Your task to perform on an android device: Go to notification settings Image 0: 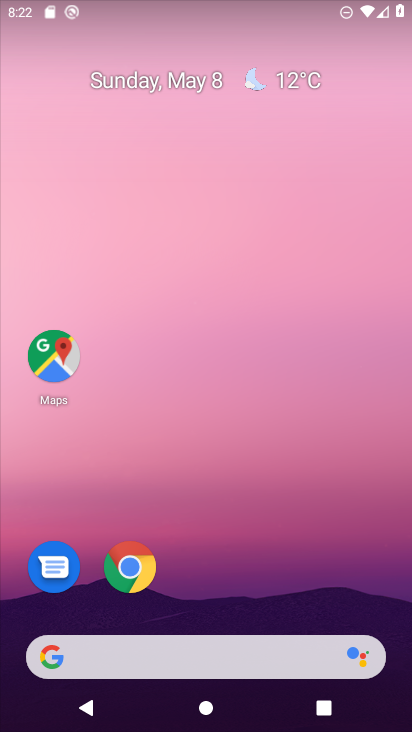
Step 0: drag from (329, 526) to (362, 91)
Your task to perform on an android device: Go to notification settings Image 1: 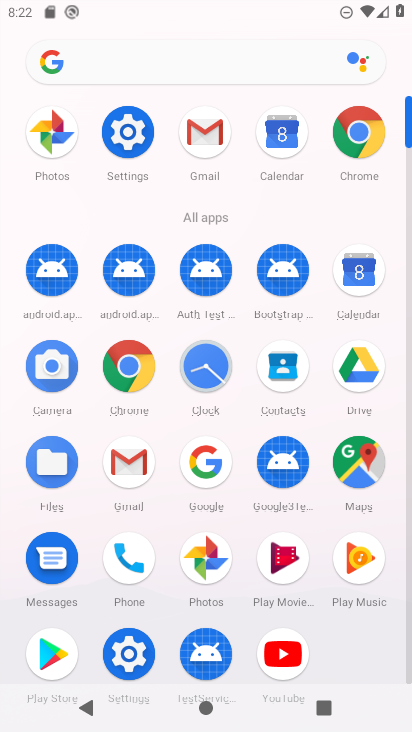
Step 1: click (109, 134)
Your task to perform on an android device: Go to notification settings Image 2: 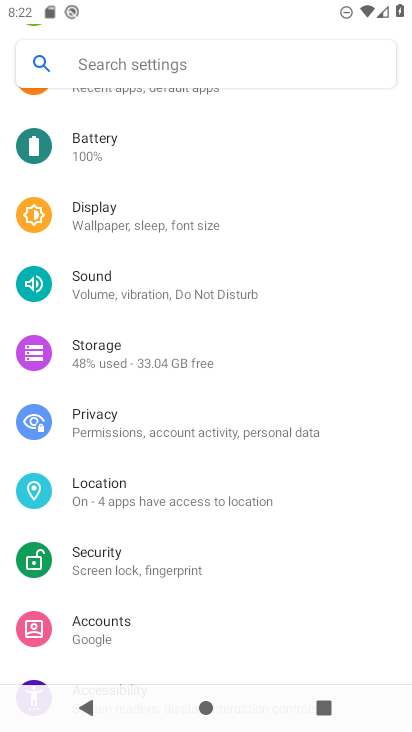
Step 2: drag from (287, 289) to (224, 643)
Your task to perform on an android device: Go to notification settings Image 3: 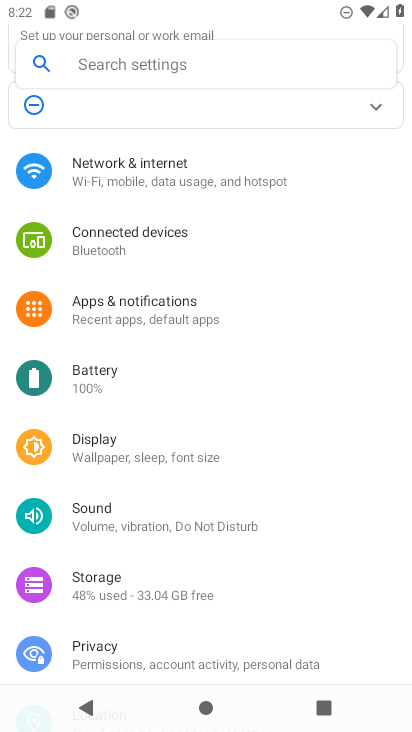
Step 3: click (163, 312)
Your task to perform on an android device: Go to notification settings Image 4: 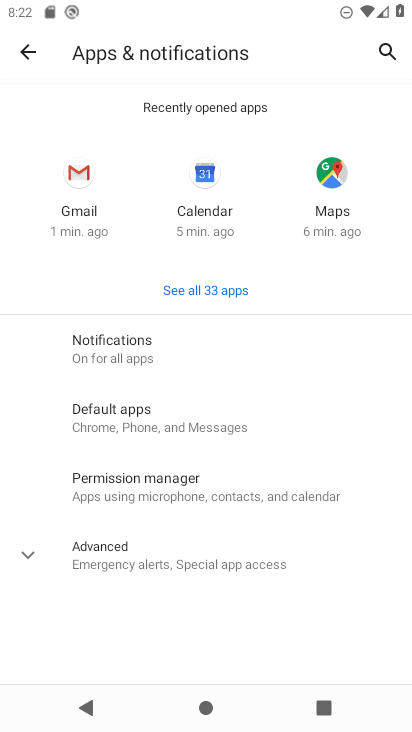
Step 4: click (126, 354)
Your task to perform on an android device: Go to notification settings Image 5: 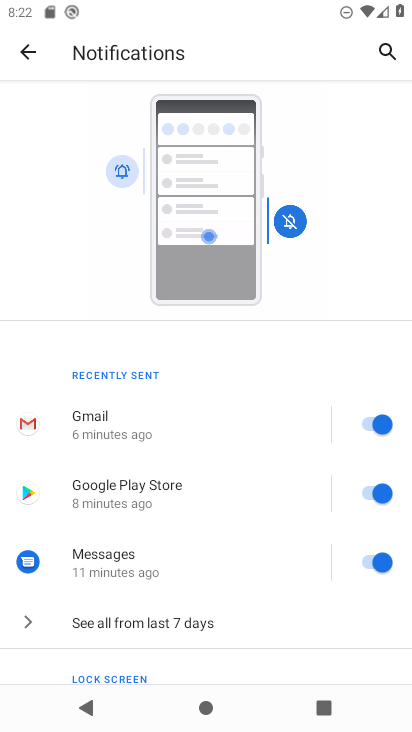
Step 5: task complete